Your task to perform on an android device: Set the phone to "Do not disturb". Image 0: 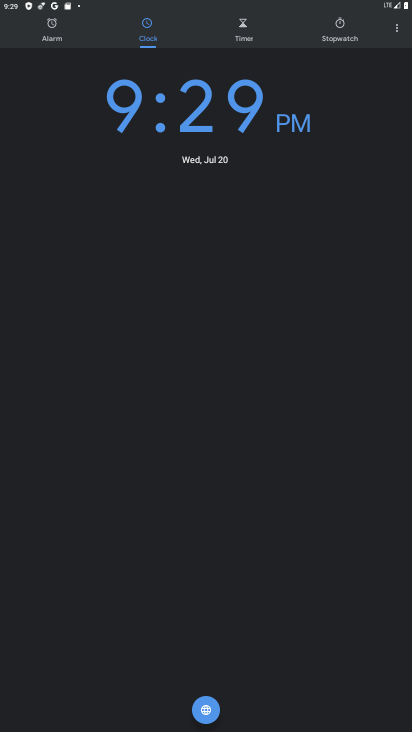
Step 0: press home button
Your task to perform on an android device: Set the phone to "Do not disturb". Image 1: 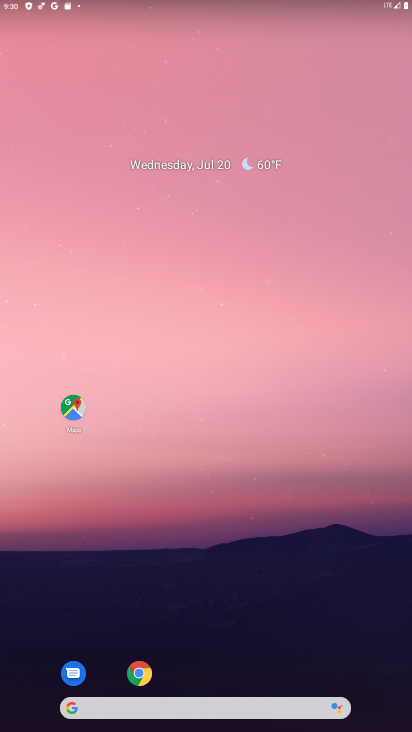
Step 1: drag from (196, 478) to (226, 260)
Your task to perform on an android device: Set the phone to "Do not disturb". Image 2: 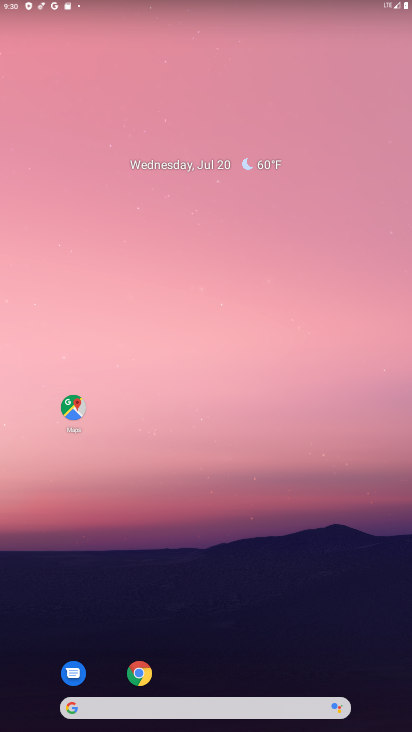
Step 2: drag from (166, 653) to (182, 396)
Your task to perform on an android device: Set the phone to "Do not disturb". Image 3: 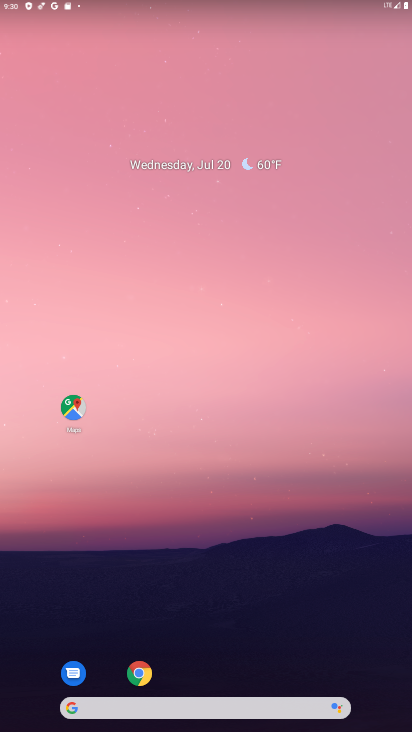
Step 3: drag from (193, 514) to (196, 137)
Your task to perform on an android device: Set the phone to "Do not disturb". Image 4: 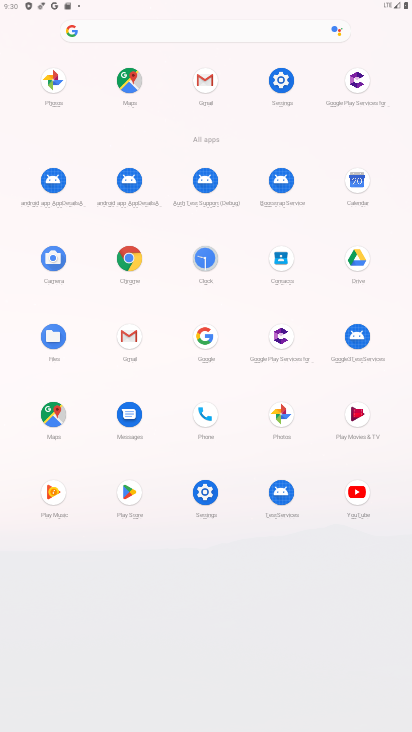
Step 4: click (280, 82)
Your task to perform on an android device: Set the phone to "Do not disturb". Image 5: 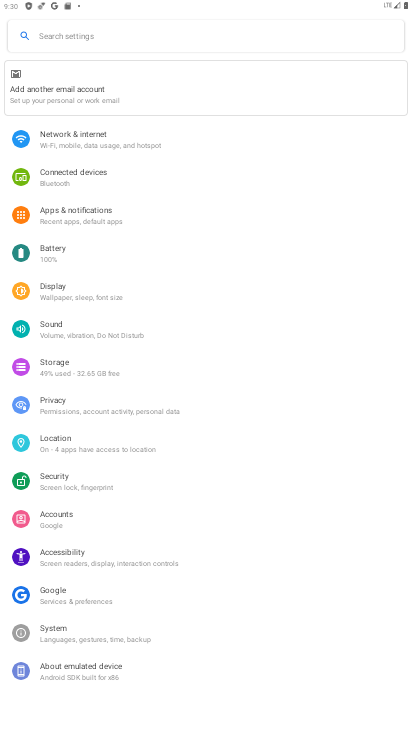
Step 5: click (65, 328)
Your task to perform on an android device: Set the phone to "Do not disturb". Image 6: 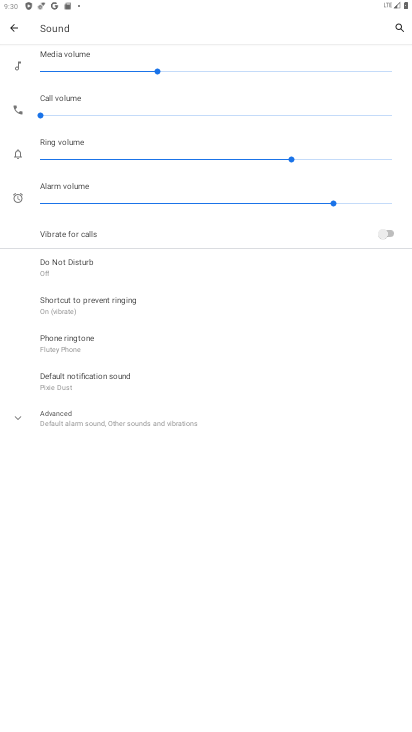
Step 6: click (68, 270)
Your task to perform on an android device: Set the phone to "Do not disturb". Image 7: 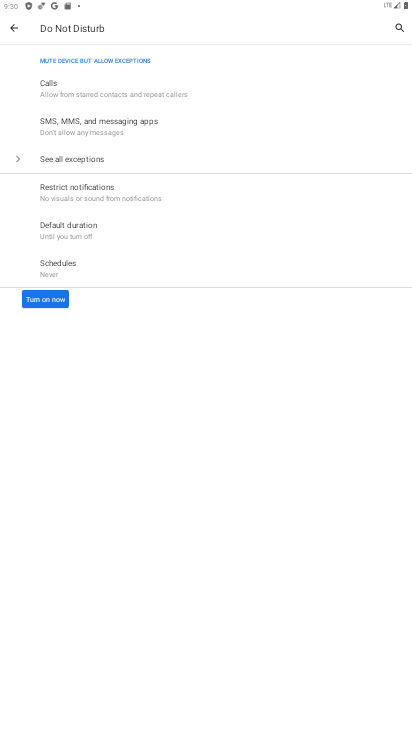
Step 7: click (44, 309)
Your task to perform on an android device: Set the phone to "Do not disturb". Image 8: 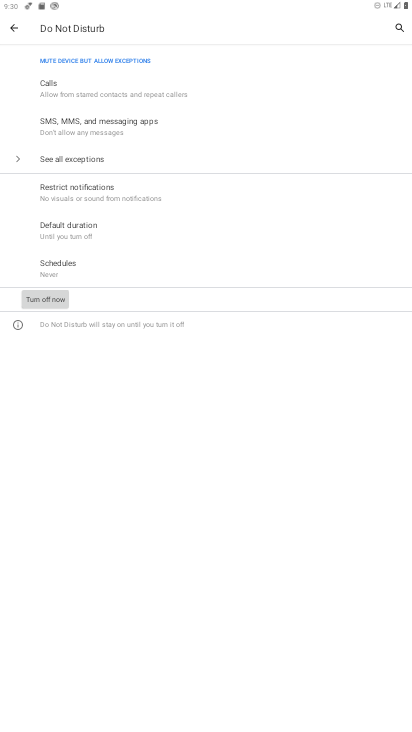
Step 8: task complete